Your task to perform on an android device: stop showing notifications on the lock screen Image 0: 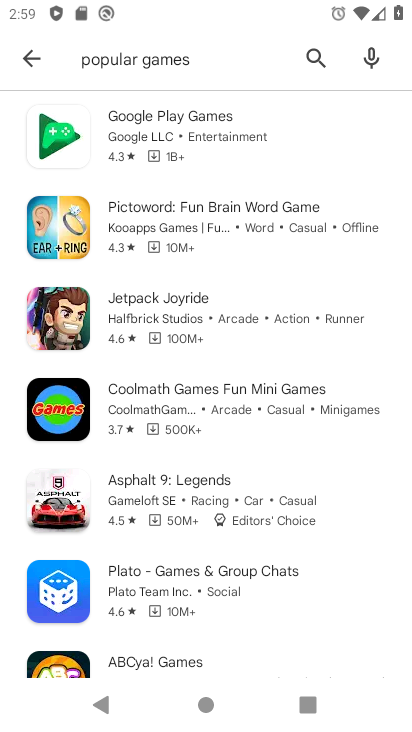
Step 0: press home button
Your task to perform on an android device: stop showing notifications on the lock screen Image 1: 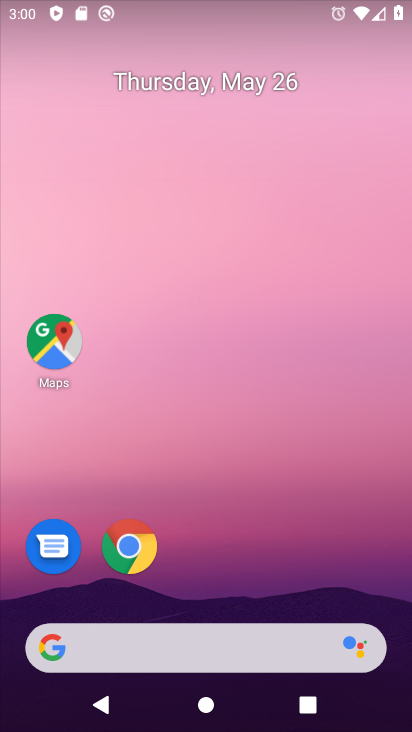
Step 1: drag from (409, 608) to (407, 446)
Your task to perform on an android device: stop showing notifications on the lock screen Image 2: 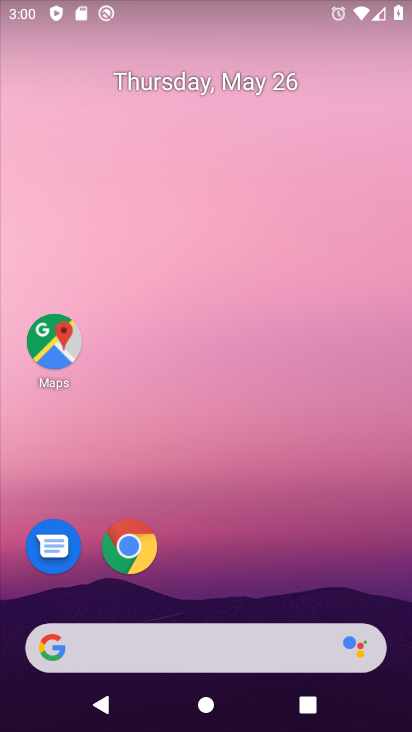
Step 2: drag from (394, 699) to (377, 210)
Your task to perform on an android device: stop showing notifications on the lock screen Image 3: 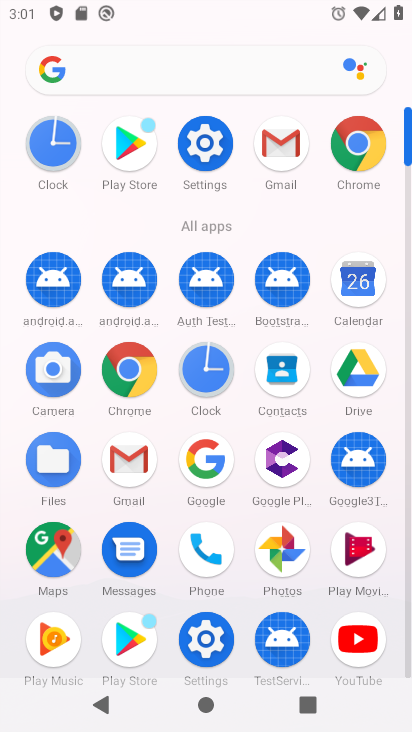
Step 3: click (204, 151)
Your task to perform on an android device: stop showing notifications on the lock screen Image 4: 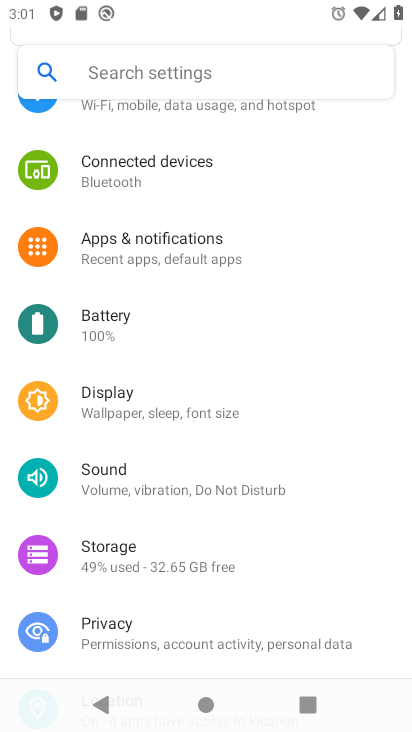
Step 4: click (204, 247)
Your task to perform on an android device: stop showing notifications on the lock screen Image 5: 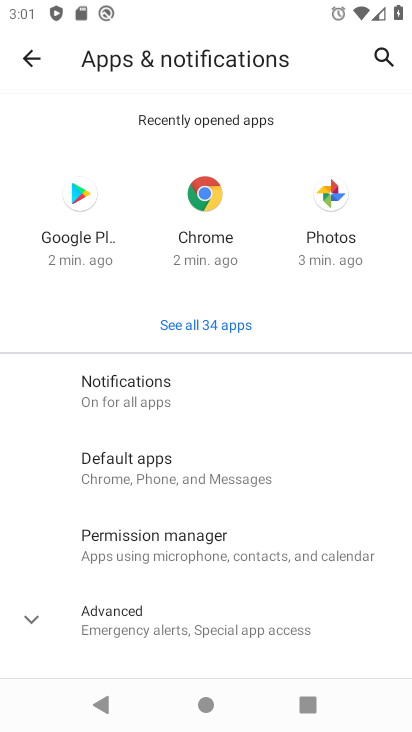
Step 5: click (125, 395)
Your task to perform on an android device: stop showing notifications on the lock screen Image 6: 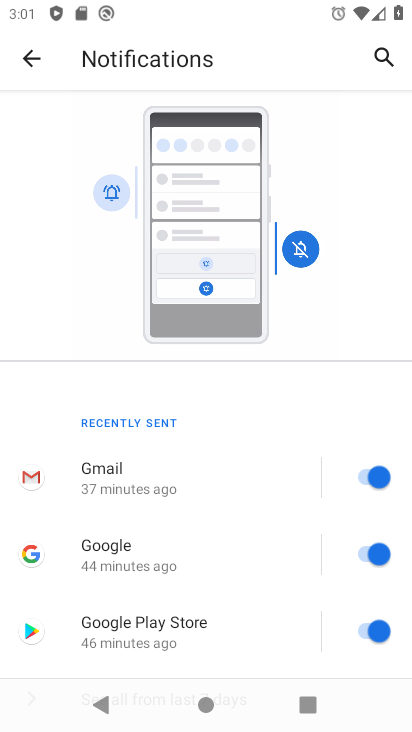
Step 6: drag from (243, 644) to (226, 347)
Your task to perform on an android device: stop showing notifications on the lock screen Image 7: 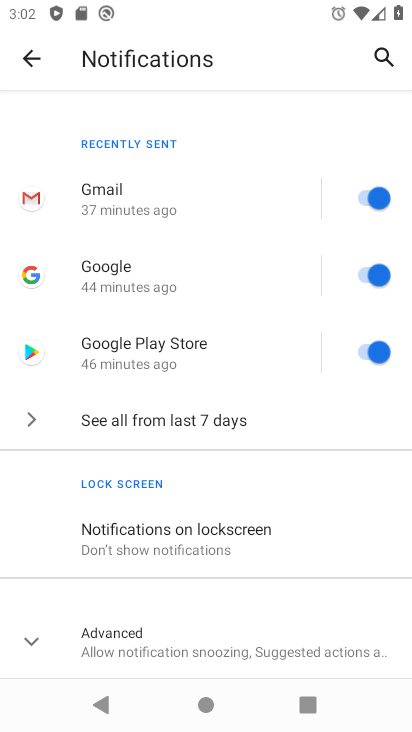
Step 7: click (183, 546)
Your task to perform on an android device: stop showing notifications on the lock screen Image 8: 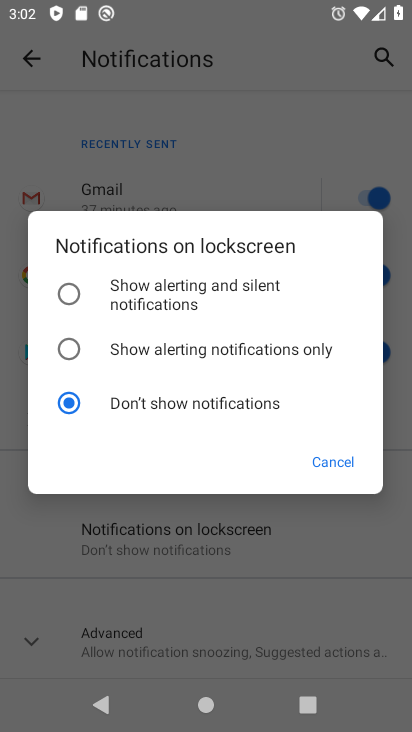
Step 8: task complete